Your task to perform on an android device: Open accessibility settings Image 0: 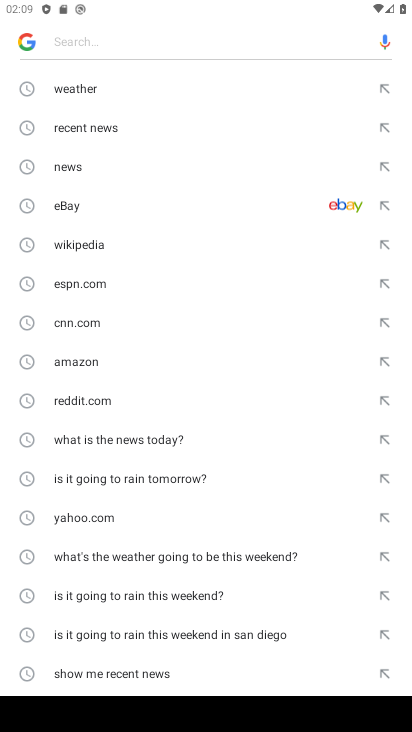
Step 0: press home button
Your task to perform on an android device: Open accessibility settings Image 1: 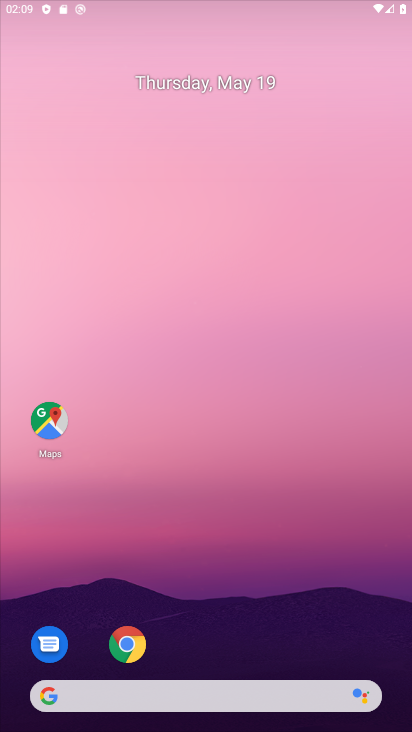
Step 1: drag from (157, 565) to (182, 247)
Your task to perform on an android device: Open accessibility settings Image 2: 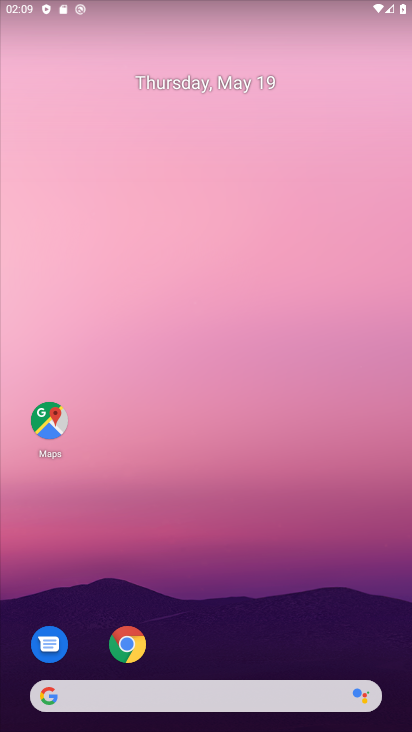
Step 2: drag from (299, 614) to (286, 180)
Your task to perform on an android device: Open accessibility settings Image 3: 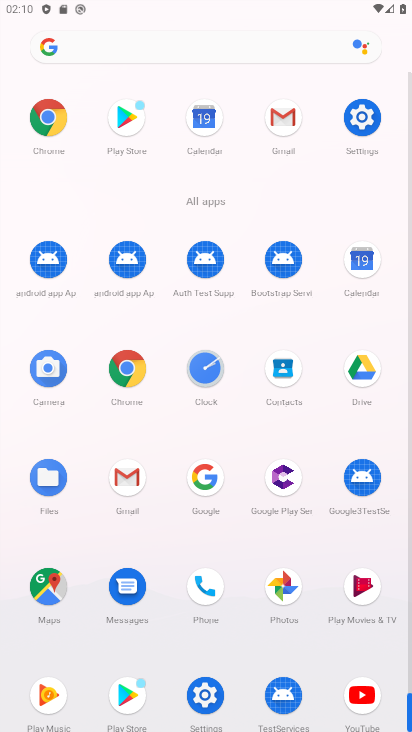
Step 3: click (356, 103)
Your task to perform on an android device: Open accessibility settings Image 4: 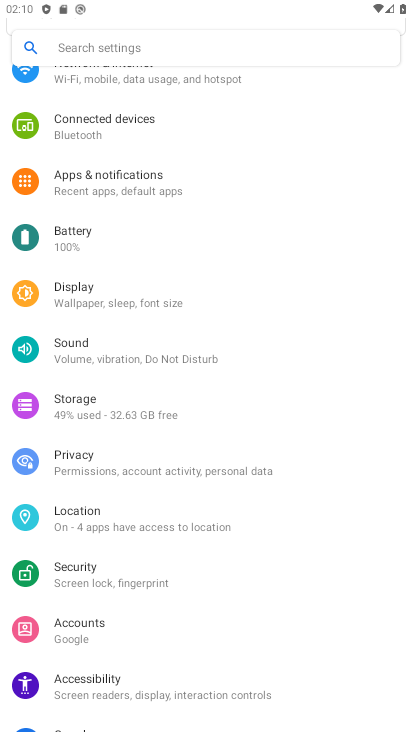
Step 4: click (129, 669)
Your task to perform on an android device: Open accessibility settings Image 5: 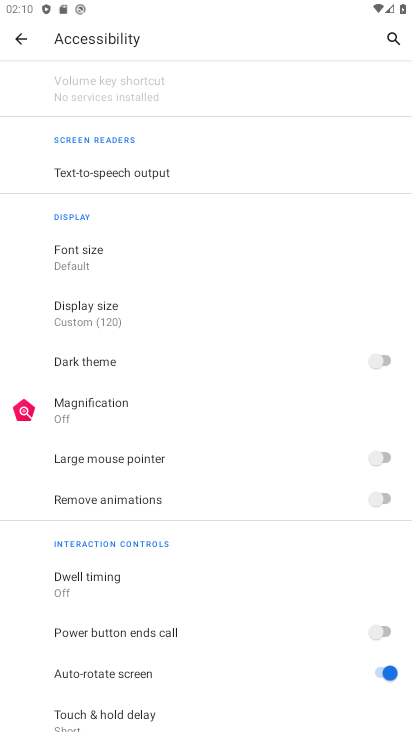
Step 5: task complete